Your task to perform on an android device: Open the web browser Image 0: 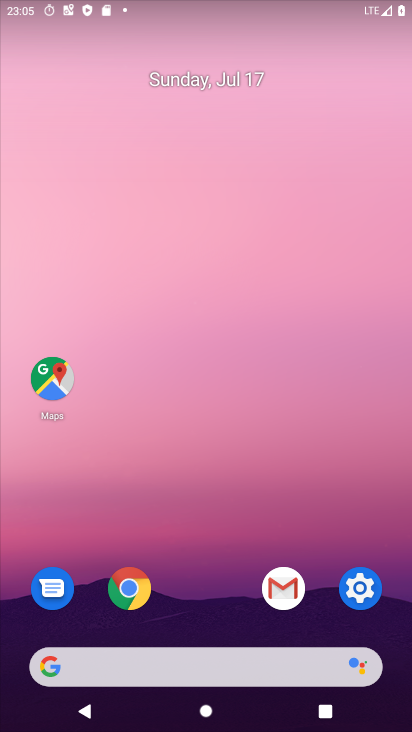
Step 0: click (342, 580)
Your task to perform on an android device: Open the web browser Image 1: 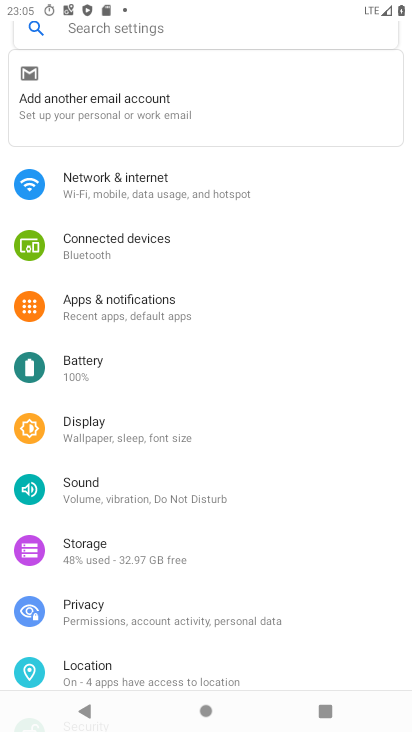
Step 1: press home button
Your task to perform on an android device: Open the web browser Image 2: 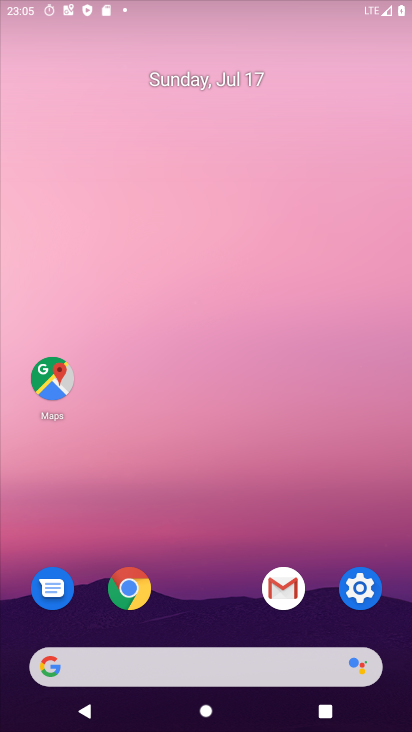
Step 2: click (143, 580)
Your task to perform on an android device: Open the web browser Image 3: 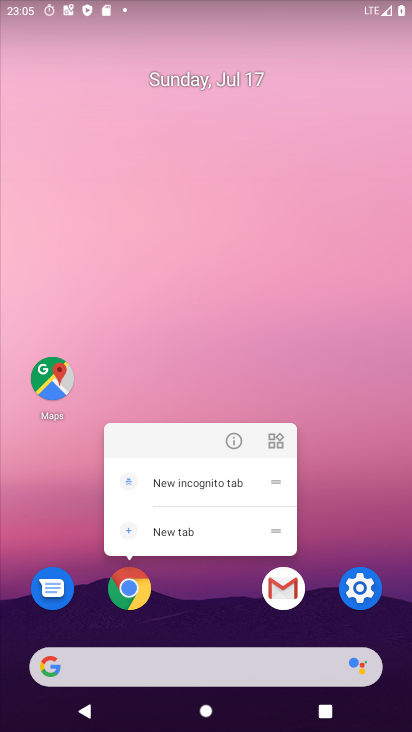
Step 3: click (139, 585)
Your task to perform on an android device: Open the web browser Image 4: 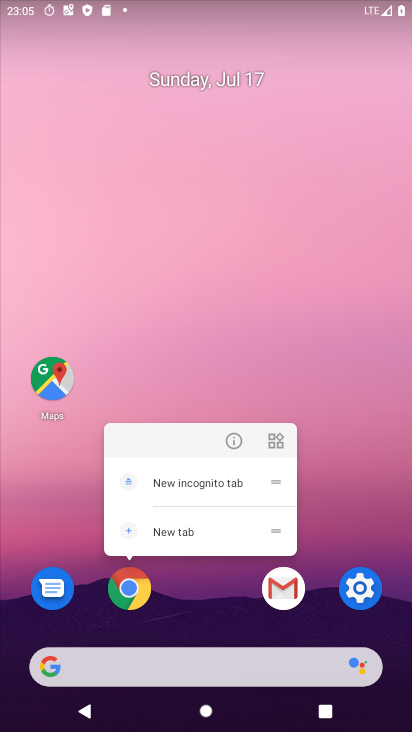
Step 4: click (129, 583)
Your task to perform on an android device: Open the web browser Image 5: 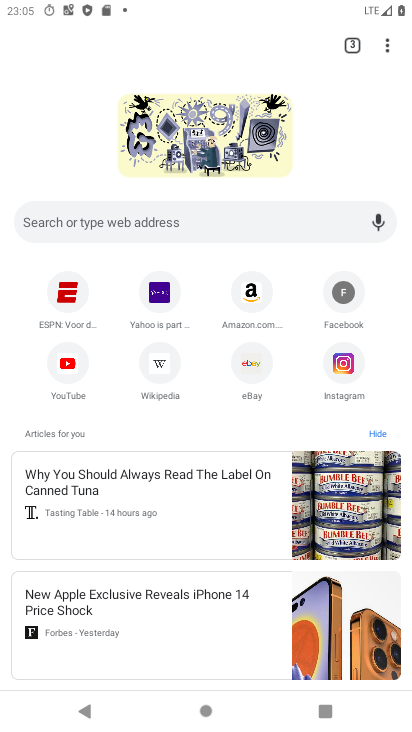
Step 5: click (141, 214)
Your task to perform on an android device: Open the web browser Image 6: 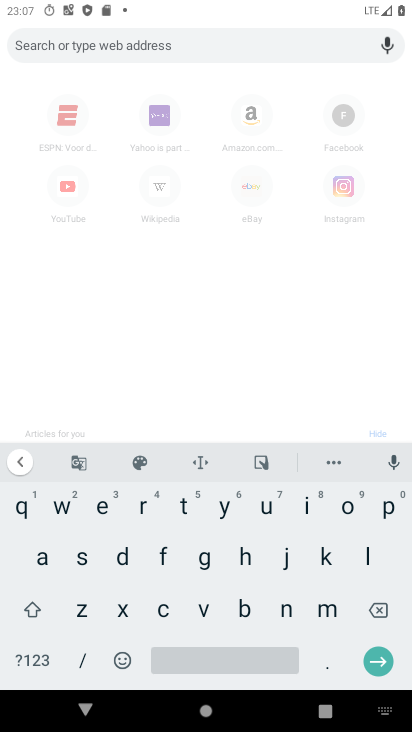
Step 6: task complete